Your task to perform on an android device: Go to wifi settings Image 0: 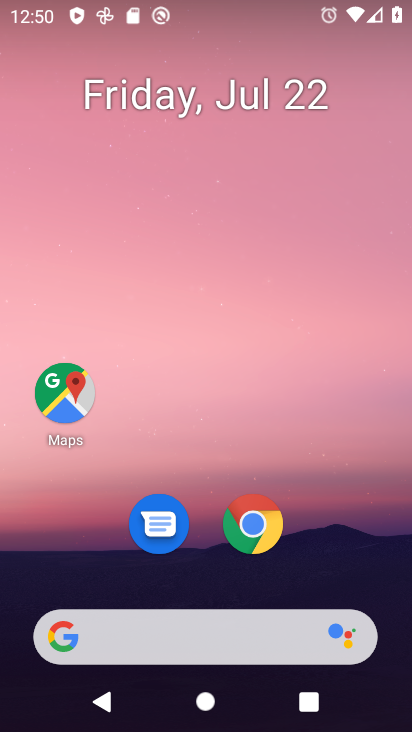
Step 0: drag from (221, 655) to (400, 5)
Your task to perform on an android device: Go to wifi settings Image 1: 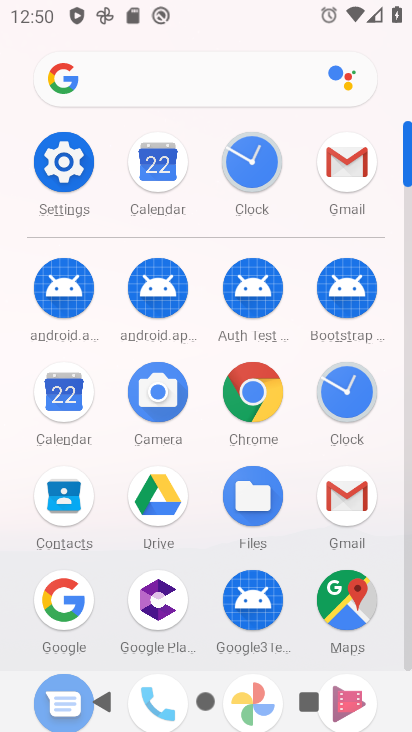
Step 1: click (52, 179)
Your task to perform on an android device: Go to wifi settings Image 2: 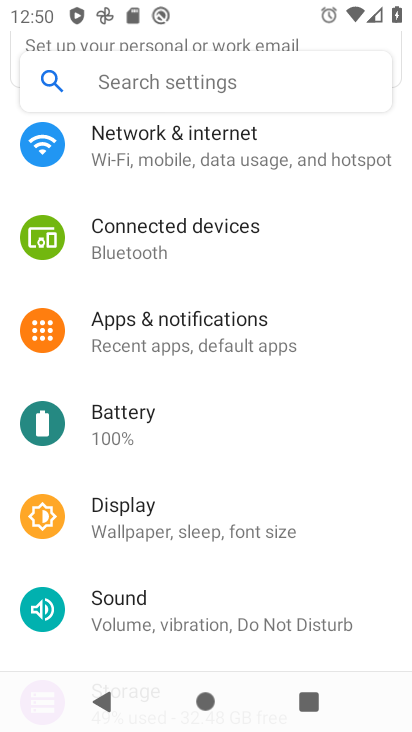
Step 2: drag from (268, 212) to (168, 609)
Your task to perform on an android device: Go to wifi settings Image 3: 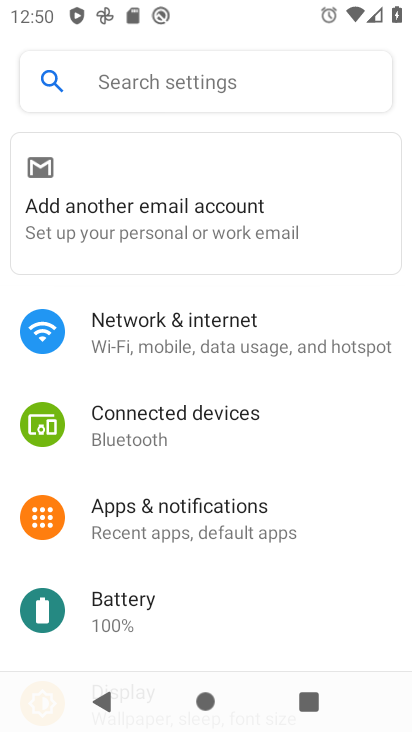
Step 3: click (199, 326)
Your task to perform on an android device: Go to wifi settings Image 4: 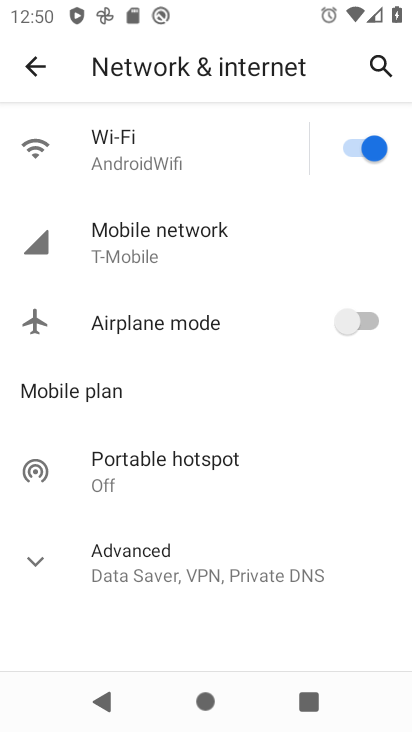
Step 4: click (132, 165)
Your task to perform on an android device: Go to wifi settings Image 5: 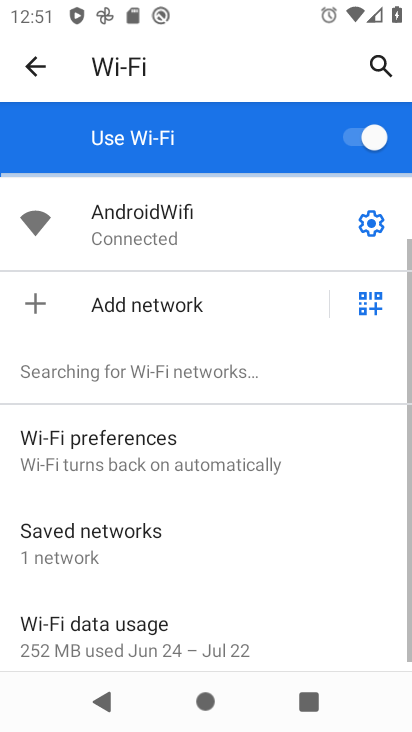
Step 5: task complete